Your task to perform on an android device: Do I have any events today? Image 0: 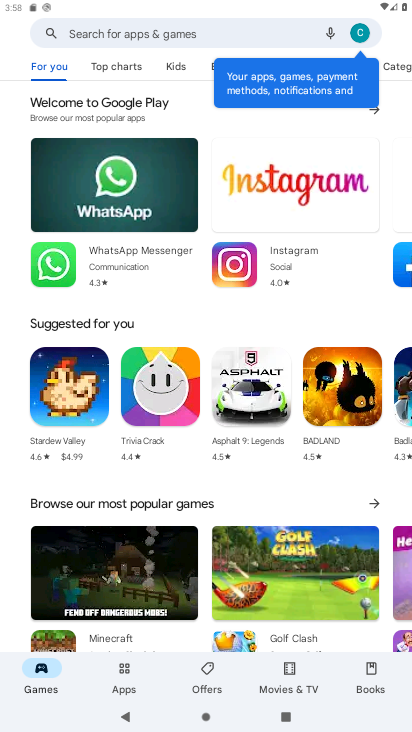
Step 0: press home button
Your task to perform on an android device: Do I have any events today? Image 1: 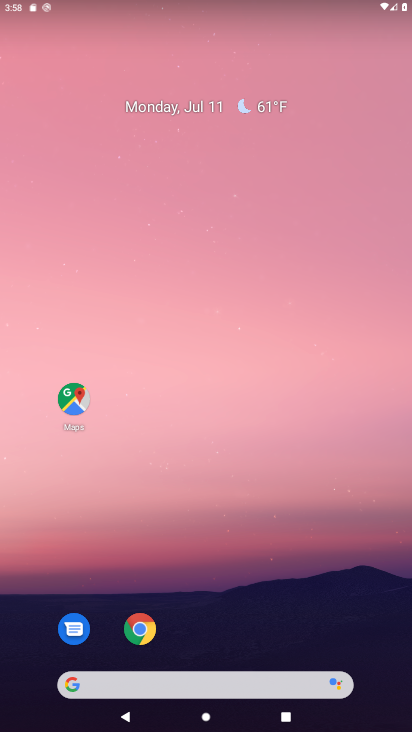
Step 1: drag from (345, 559) to (242, 111)
Your task to perform on an android device: Do I have any events today? Image 2: 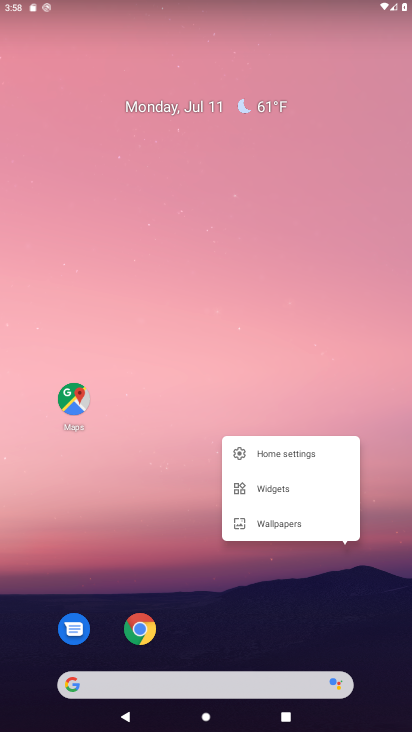
Step 2: click (280, 635)
Your task to perform on an android device: Do I have any events today? Image 3: 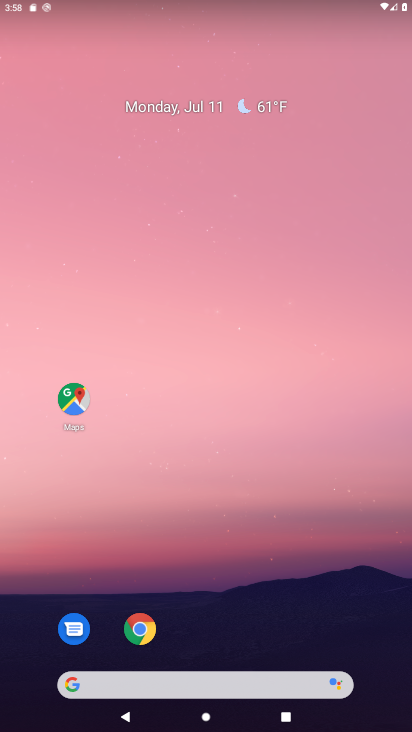
Step 3: drag from (280, 635) to (263, 0)
Your task to perform on an android device: Do I have any events today? Image 4: 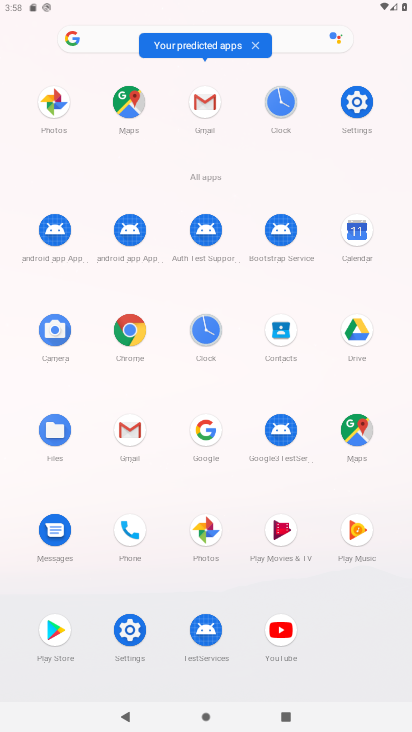
Step 4: click (354, 237)
Your task to perform on an android device: Do I have any events today? Image 5: 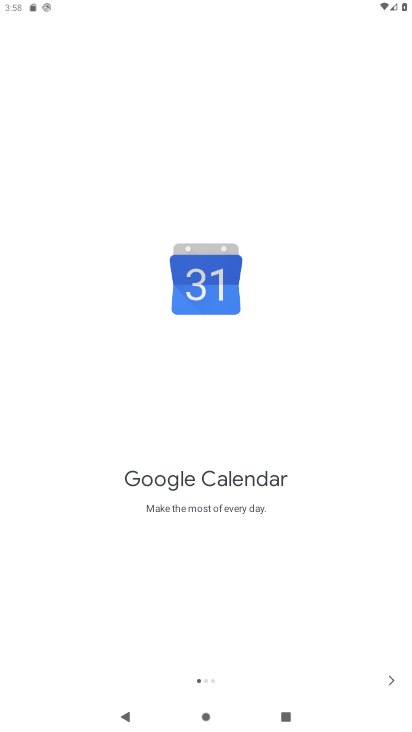
Step 5: click (388, 680)
Your task to perform on an android device: Do I have any events today? Image 6: 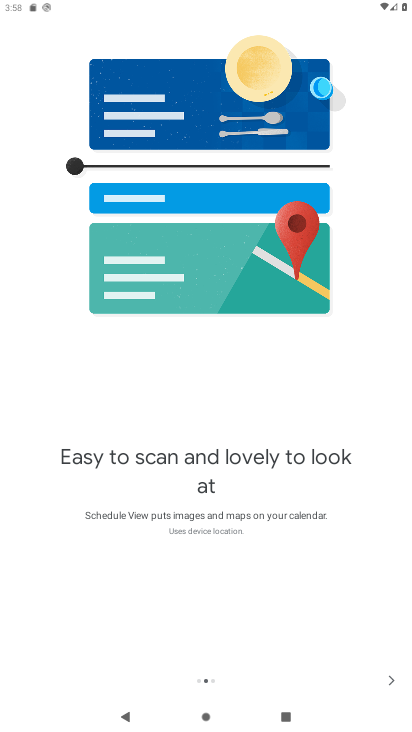
Step 6: click (388, 680)
Your task to perform on an android device: Do I have any events today? Image 7: 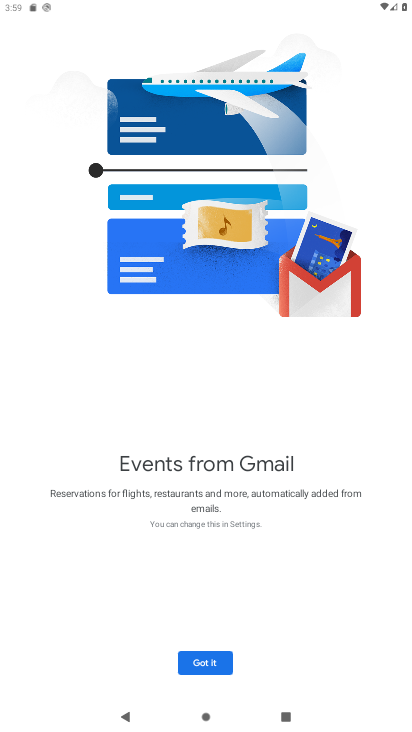
Step 7: click (212, 665)
Your task to perform on an android device: Do I have any events today? Image 8: 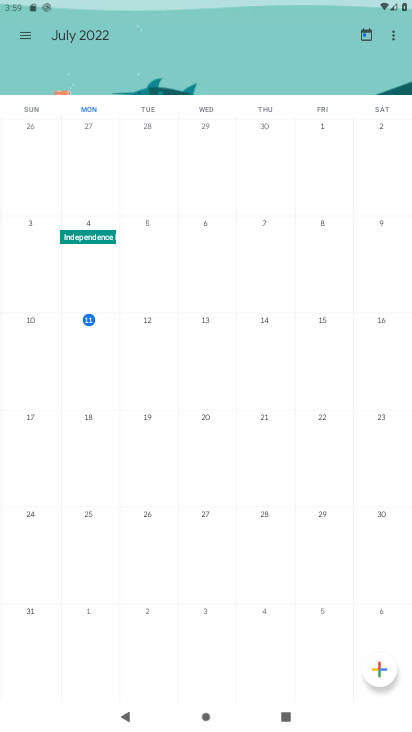
Step 8: click (20, 42)
Your task to perform on an android device: Do I have any events today? Image 9: 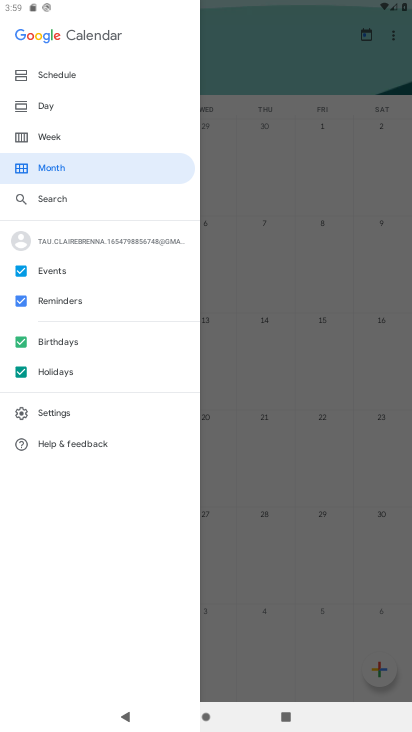
Step 9: click (63, 109)
Your task to perform on an android device: Do I have any events today? Image 10: 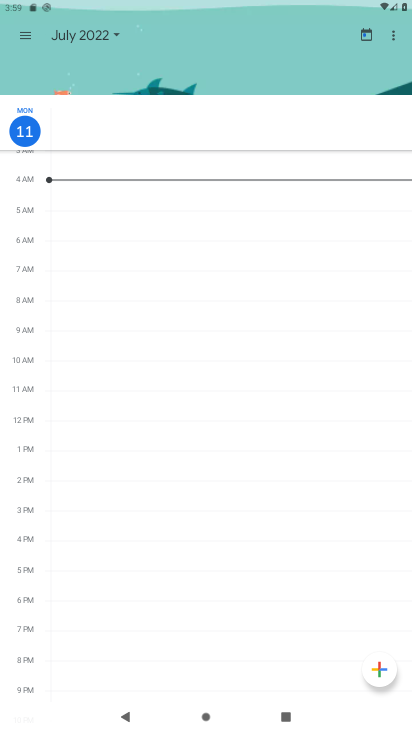
Step 10: task complete